Your task to perform on an android device: add a label to a message in the gmail app Image 0: 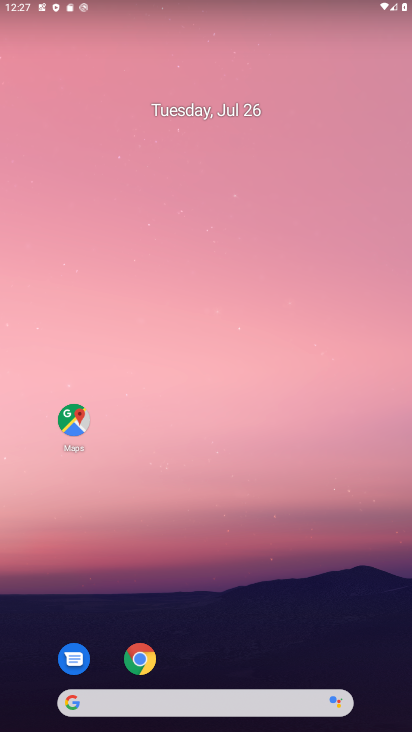
Step 0: drag from (155, 649) to (172, 147)
Your task to perform on an android device: add a label to a message in the gmail app Image 1: 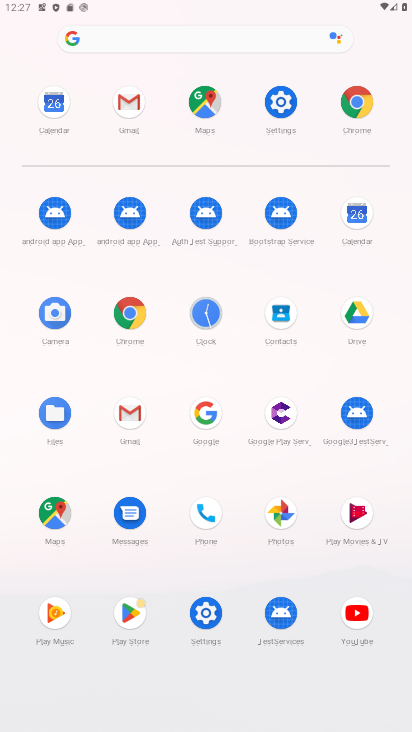
Step 1: click (117, 415)
Your task to perform on an android device: add a label to a message in the gmail app Image 2: 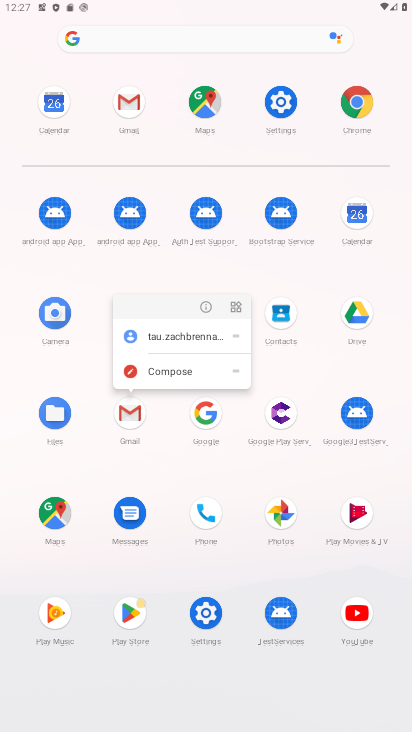
Step 2: click (208, 307)
Your task to perform on an android device: add a label to a message in the gmail app Image 3: 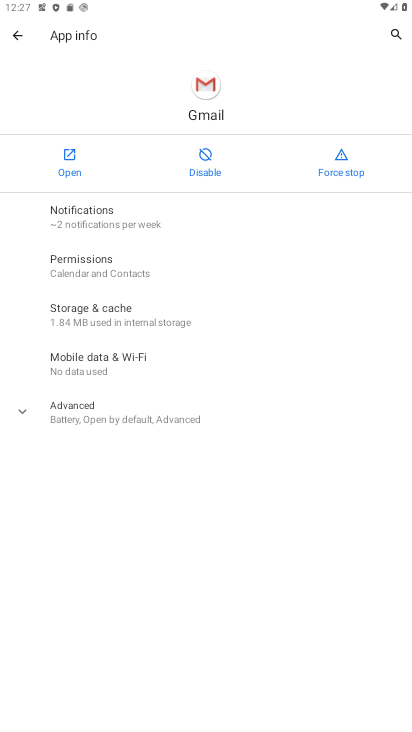
Step 3: click (70, 173)
Your task to perform on an android device: add a label to a message in the gmail app Image 4: 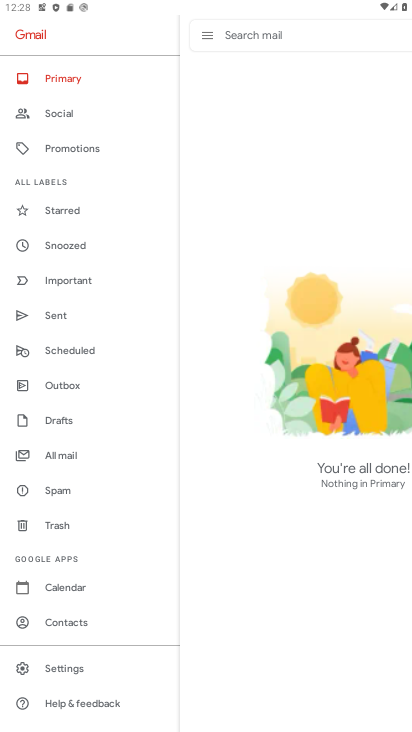
Step 4: click (75, 80)
Your task to perform on an android device: add a label to a message in the gmail app Image 5: 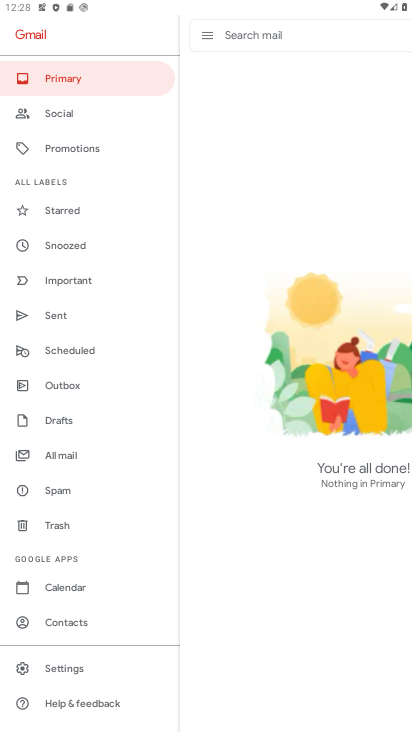
Step 5: task complete